Your task to perform on an android device: Open Reddit.com Image 0: 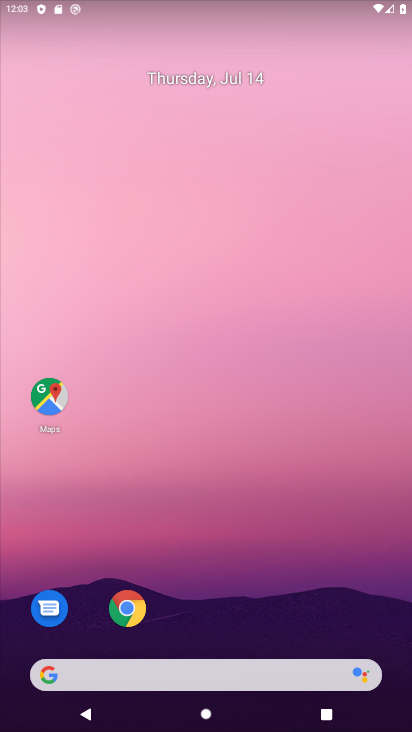
Step 0: click (137, 690)
Your task to perform on an android device: Open Reddit.com Image 1: 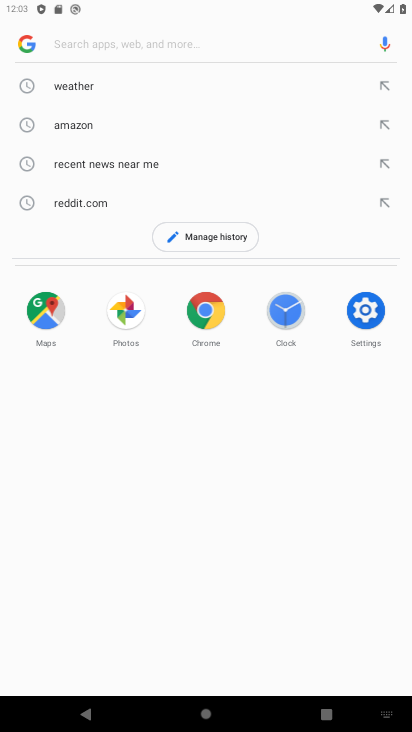
Step 1: click (177, 49)
Your task to perform on an android device: Open Reddit.com Image 2: 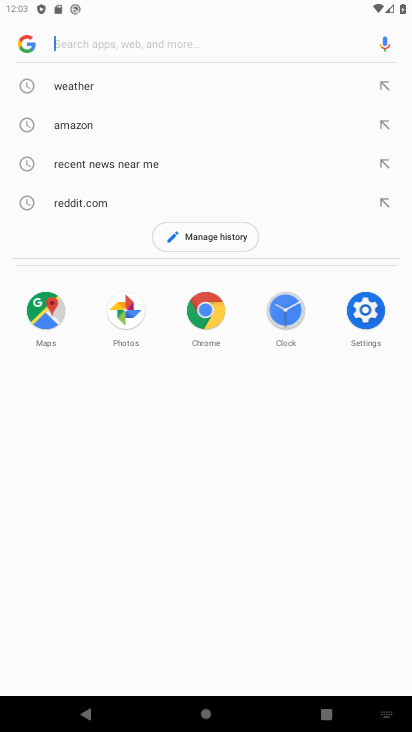
Step 2: type "Reddit.com"
Your task to perform on an android device: Open Reddit.com Image 3: 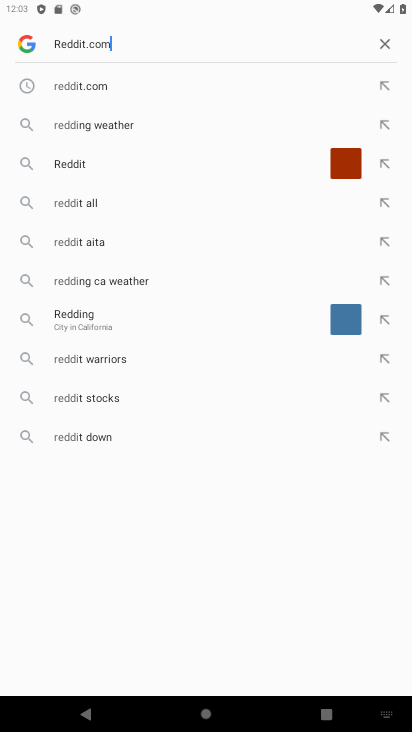
Step 3: type ""
Your task to perform on an android device: Open Reddit.com Image 4: 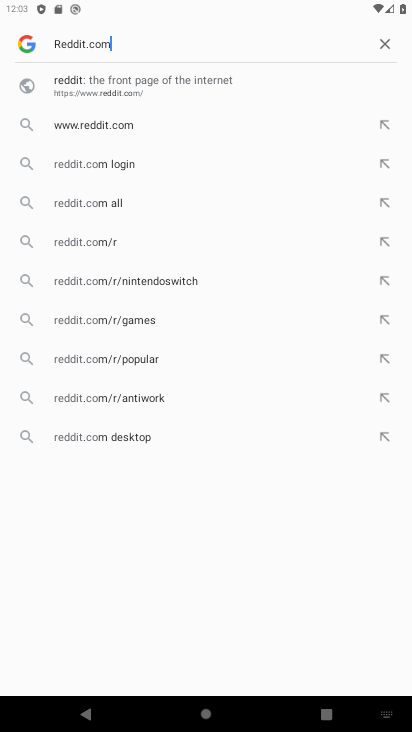
Step 4: click (154, 92)
Your task to perform on an android device: Open Reddit.com Image 5: 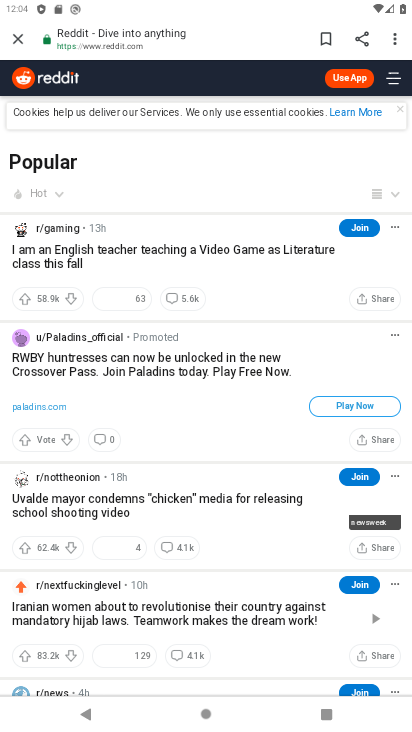
Step 5: task complete